Your task to perform on an android device: turn on showing notifications on the lock screen Image 0: 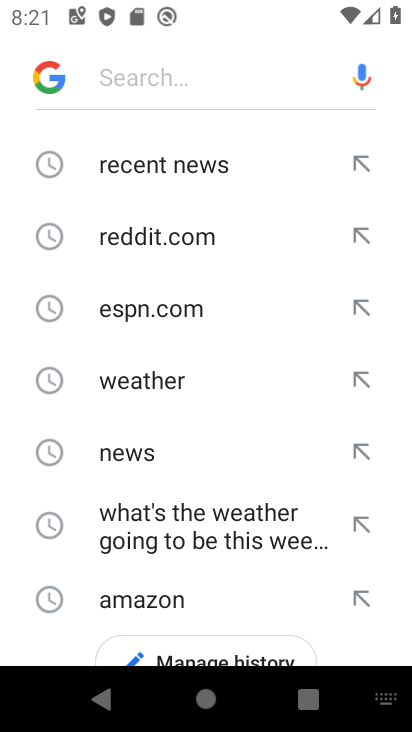
Step 0: press home button
Your task to perform on an android device: turn on showing notifications on the lock screen Image 1: 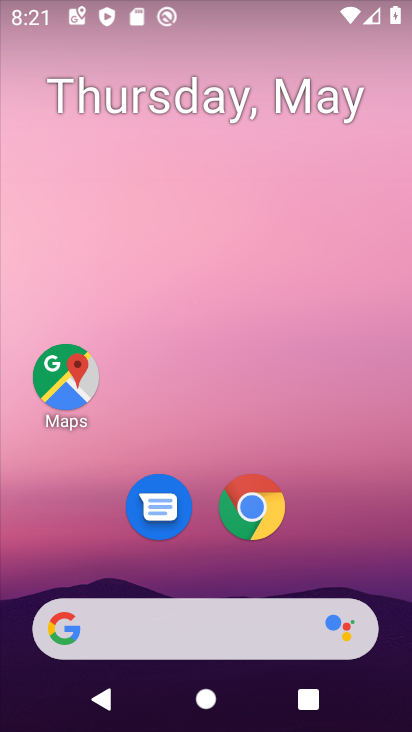
Step 1: drag from (369, 559) to (348, 115)
Your task to perform on an android device: turn on showing notifications on the lock screen Image 2: 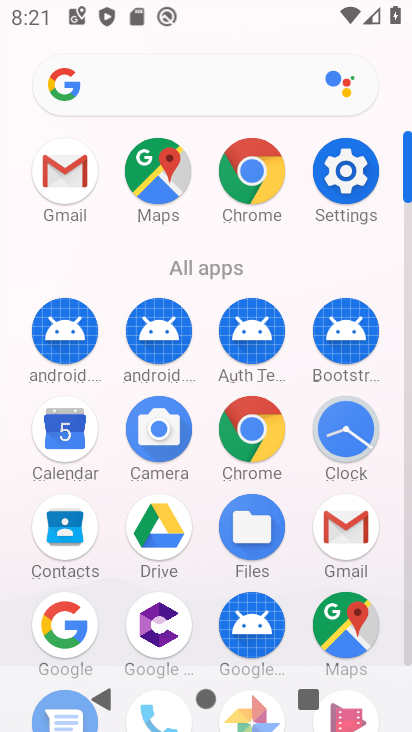
Step 2: click (340, 177)
Your task to perform on an android device: turn on showing notifications on the lock screen Image 3: 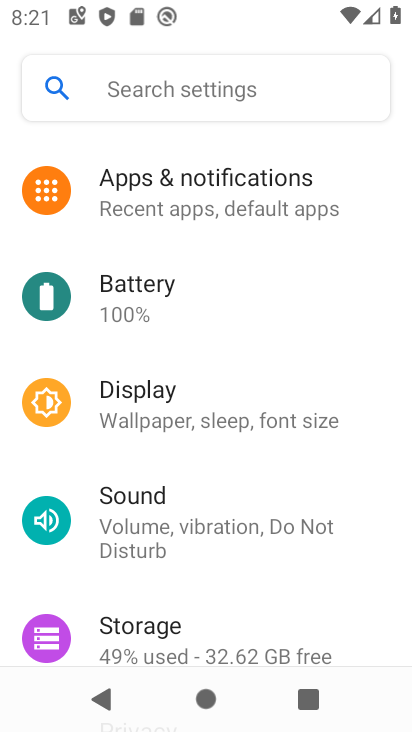
Step 3: click (235, 200)
Your task to perform on an android device: turn on showing notifications on the lock screen Image 4: 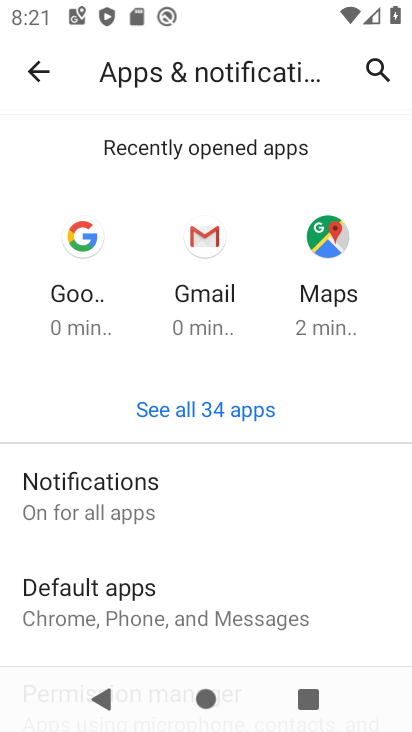
Step 4: click (114, 499)
Your task to perform on an android device: turn on showing notifications on the lock screen Image 5: 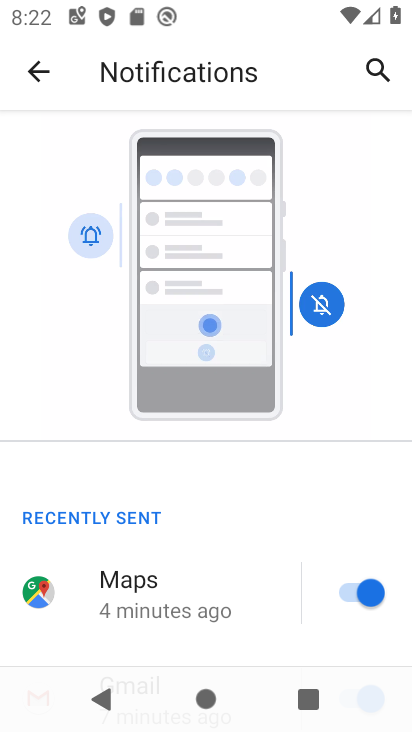
Step 5: drag from (210, 511) to (307, 163)
Your task to perform on an android device: turn on showing notifications on the lock screen Image 6: 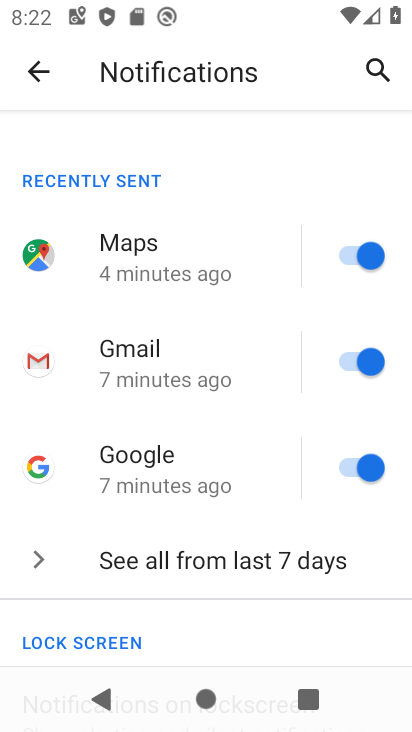
Step 6: drag from (254, 616) to (285, 188)
Your task to perform on an android device: turn on showing notifications on the lock screen Image 7: 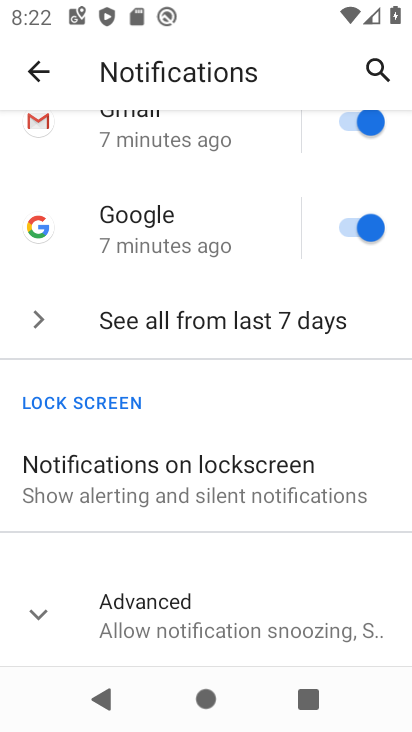
Step 7: click (167, 485)
Your task to perform on an android device: turn on showing notifications on the lock screen Image 8: 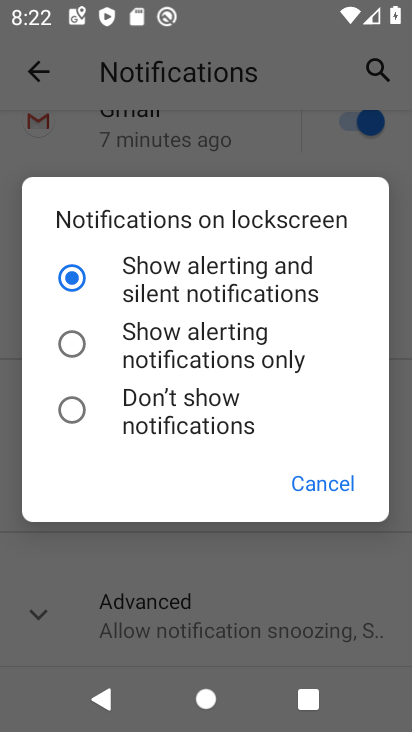
Step 8: task complete